Your task to perform on an android device: Open the map Image 0: 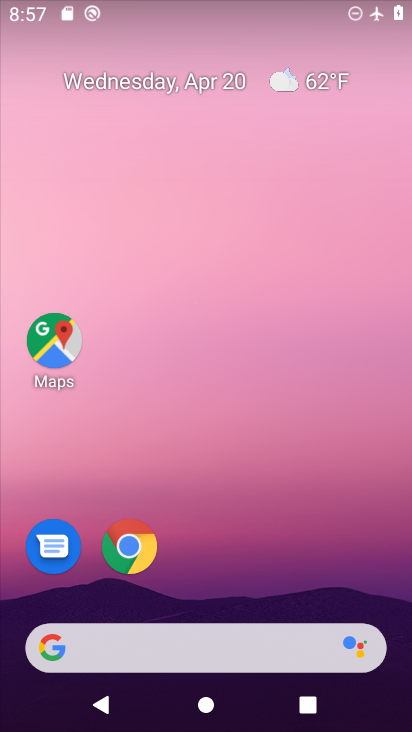
Step 0: click (52, 340)
Your task to perform on an android device: Open the map Image 1: 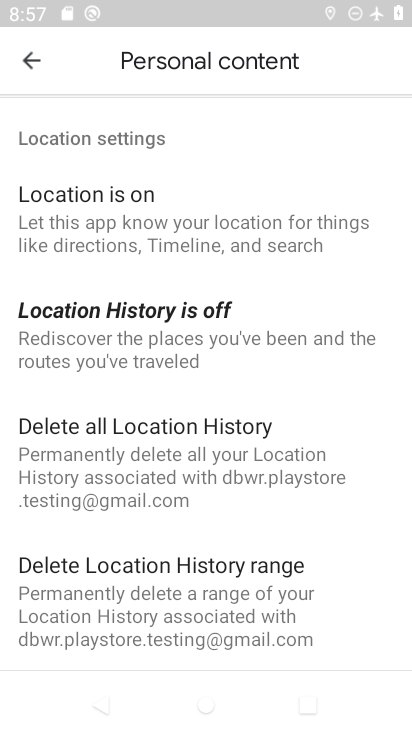
Step 1: click (33, 52)
Your task to perform on an android device: Open the map Image 2: 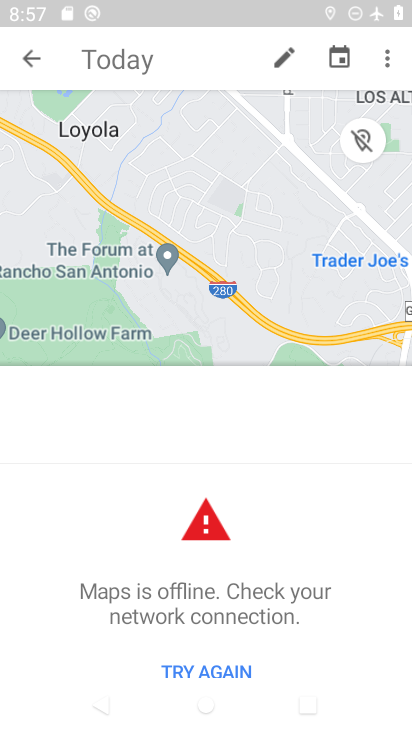
Step 2: task complete